Your task to perform on an android device: empty trash in google photos Image 0: 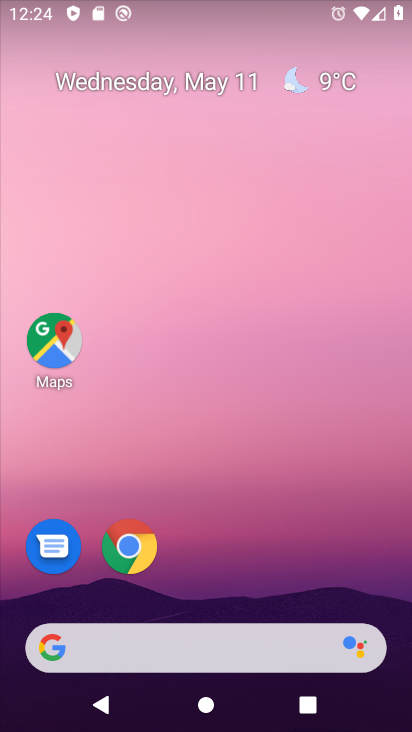
Step 0: drag from (208, 568) to (251, 119)
Your task to perform on an android device: empty trash in google photos Image 1: 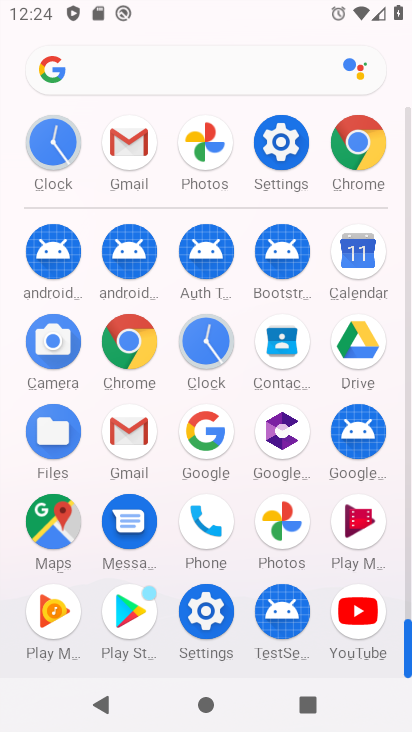
Step 1: click (292, 521)
Your task to perform on an android device: empty trash in google photos Image 2: 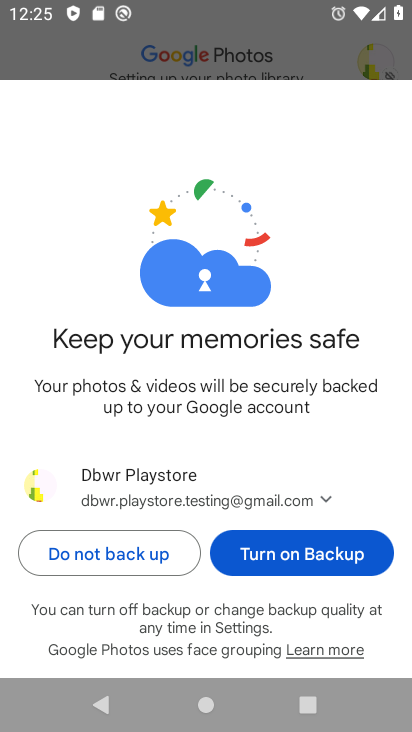
Step 2: click (142, 568)
Your task to perform on an android device: empty trash in google photos Image 3: 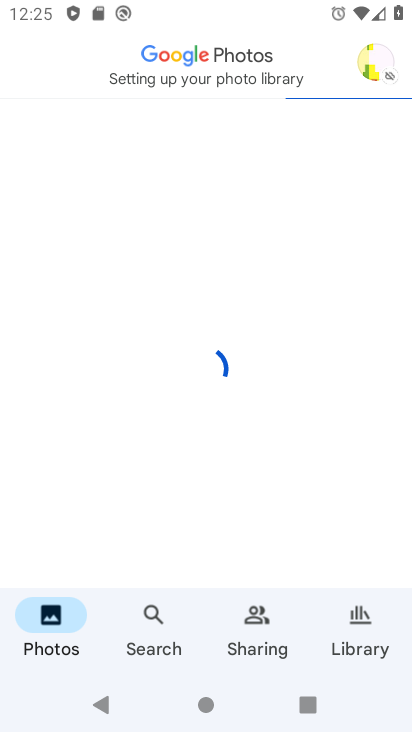
Step 3: click (344, 613)
Your task to perform on an android device: empty trash in google photos Image 4: 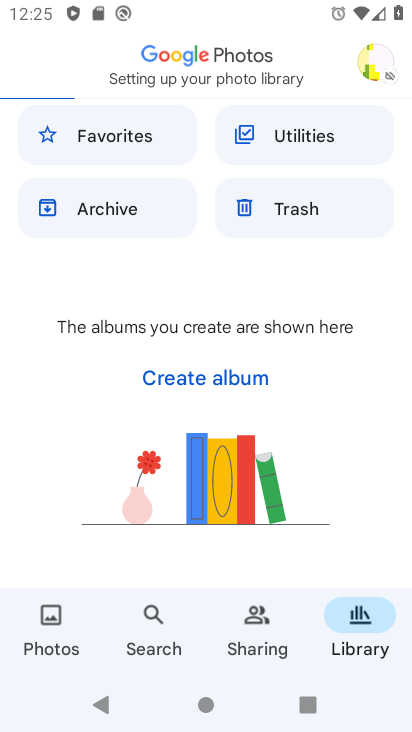
Step 4: click (319, 195)
Your task to perform on an android device: empty trash in google photos Image 5: 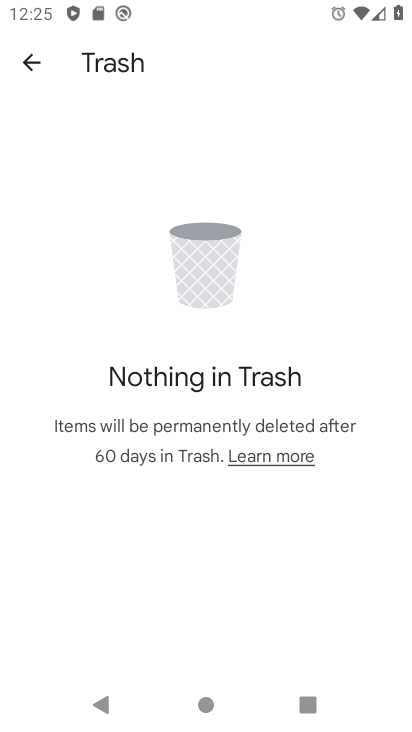
Step 5: task complete